Your task to perform on an android device: refresh tabs in the chrome app Image 0: 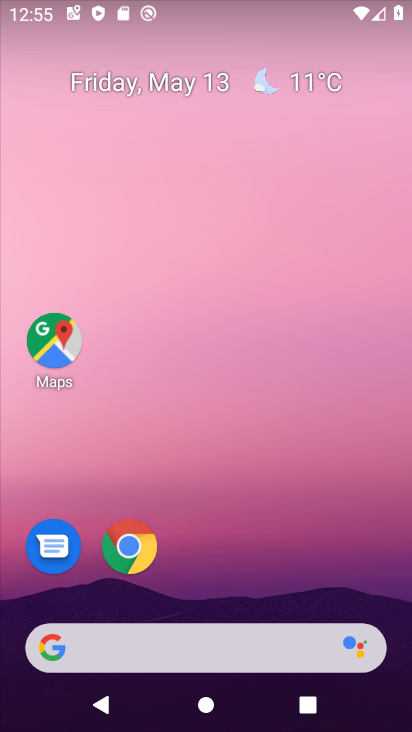
Step 0: drag from (251, 582) to (304, 153)
Your task to perform on an android device: refresh tabs in the chrome app Image 1: 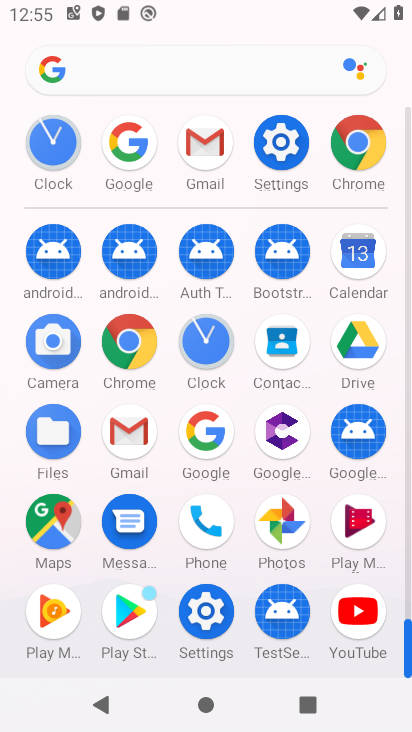
Step 1: click (368, 166)
Your task to perform on an android device: refresh tabs in the chrome app Image 2: 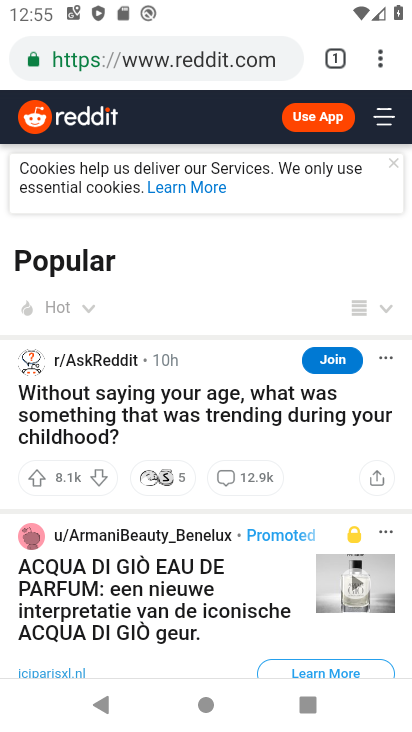
Step 2: click (385, 69)
Your task to perform on an android device: refresh tabs in the chrome app Image 3: 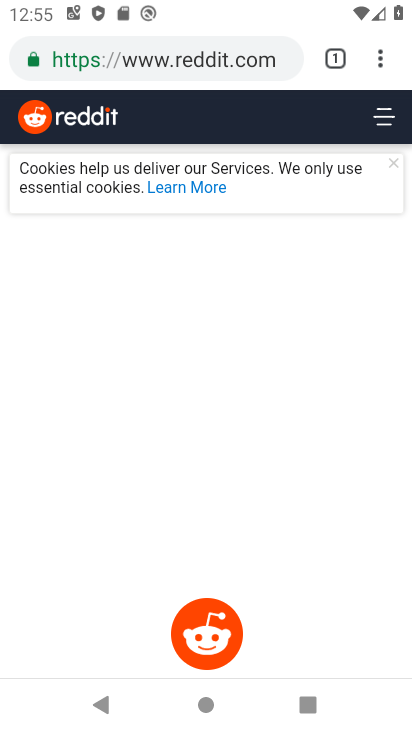
Step 3: task complete